Your task to perform on an android device: change text size in settings app Image 0: 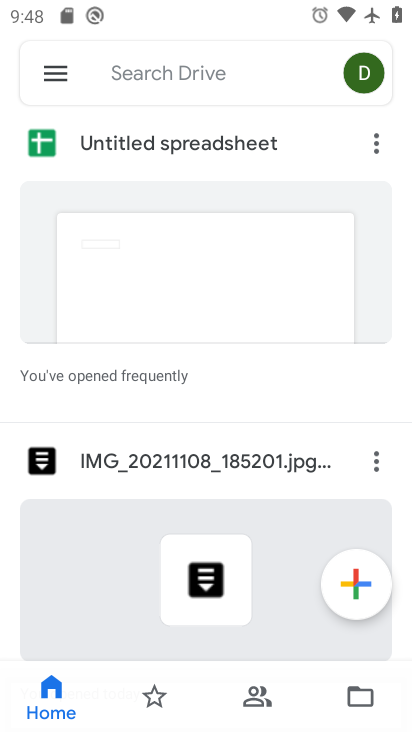
Step 0: press home button
Your task to perform on an android device: change text size in settings app Image 1: 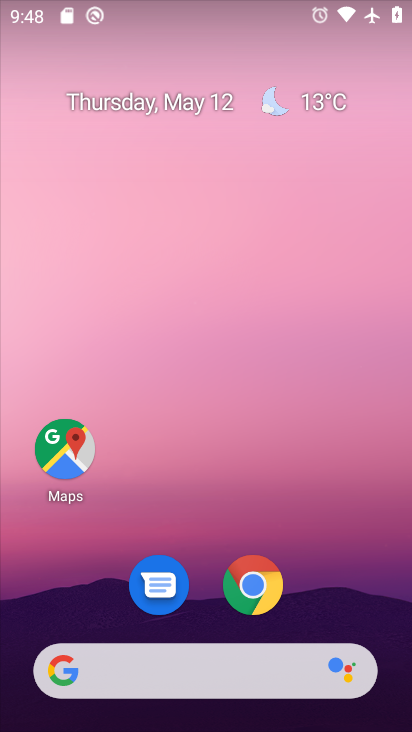
Step 1: drag from (217, 505) to (203, 57)
Your task to perform on an android device: change text size in settings app Image 2: 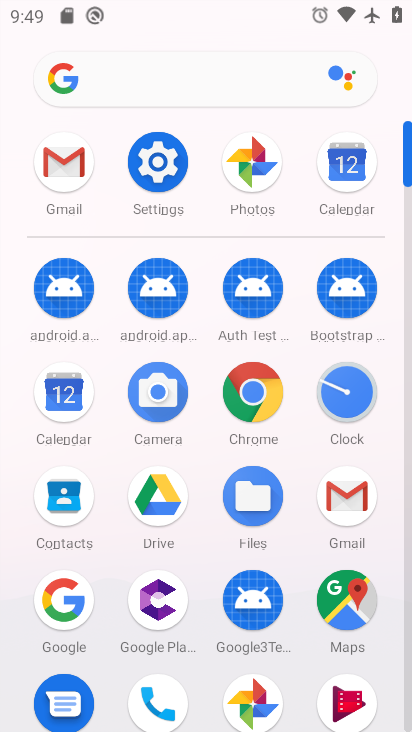
Step 2: click (176, 171)
Your task to perform on an android device: change text size in settings app Image 3: 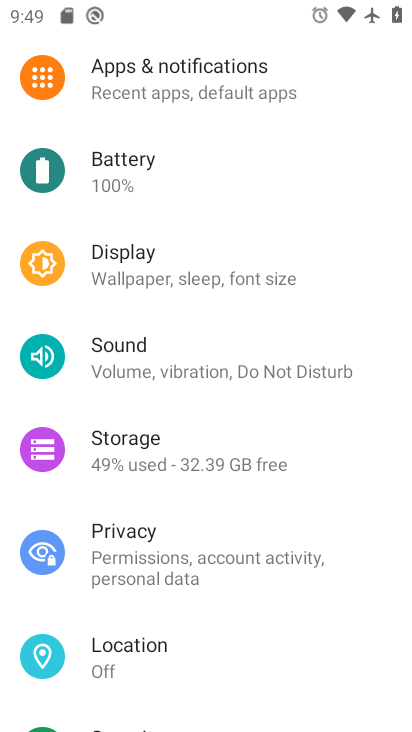
Step 3: click (205, 261)
Your task to perform on an android device: change text size in settings app Image 4: 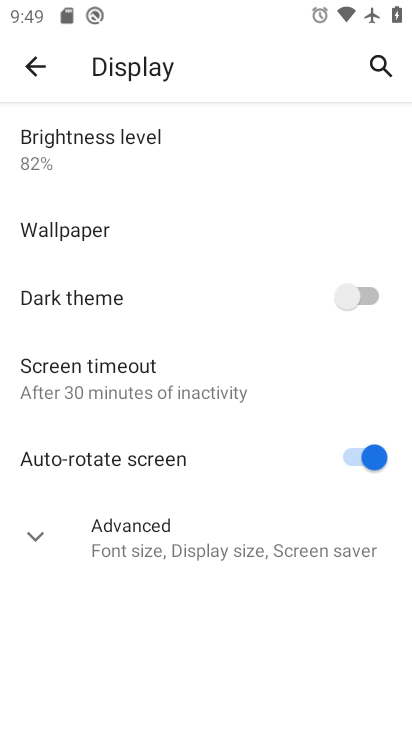
Step 4: click (36, 532)
Your task to perform on an android device: change text size in settings app Image 5: 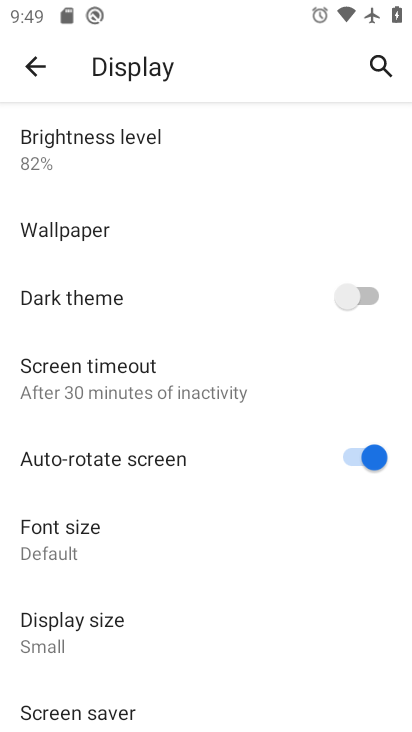
Step 5: click (71, 541)
Your task to perform on an android device: change text size in settings app Image 6: 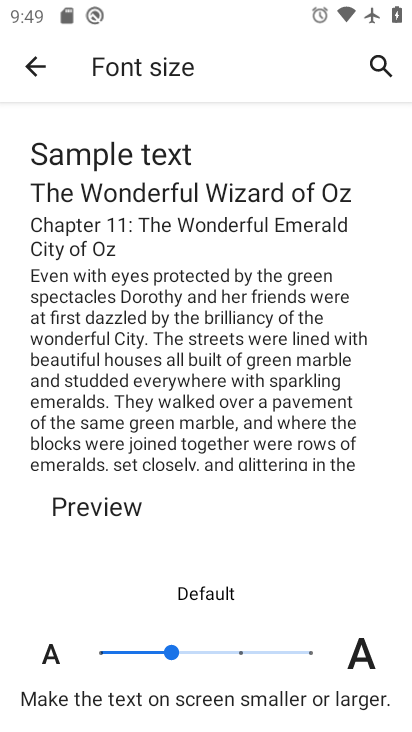
Step 6: click (108, 644)
Your task to perform on an android device: change text size in settings app Image 7: 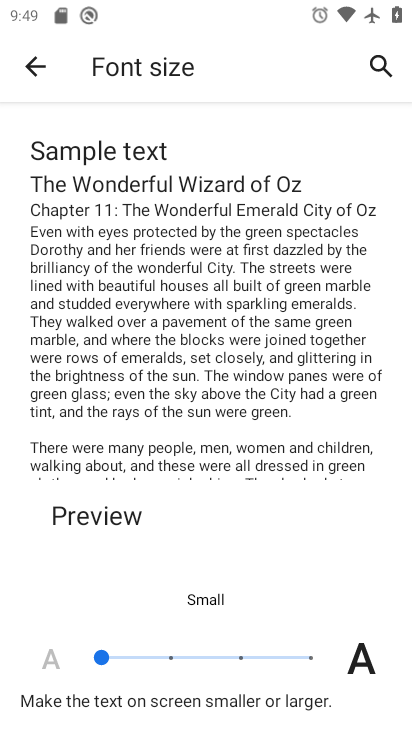
Step 7: click (33, 60)
Your task to perform on an android device: change text size in settings app Image 8: 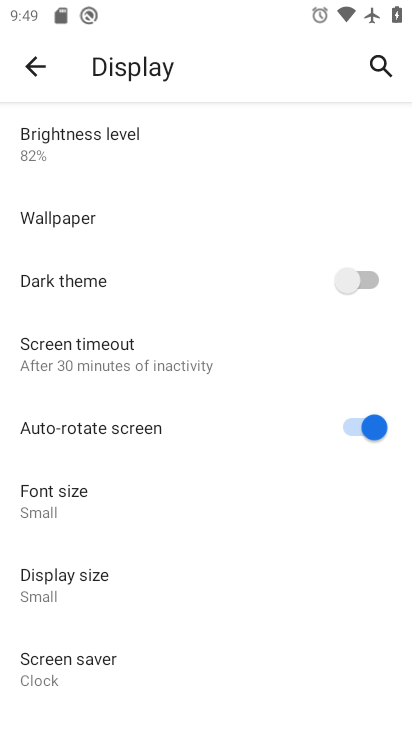
Step 8: task complete